Your task to perform on an android device: turn vacation reply on in the gmail app Image 0: 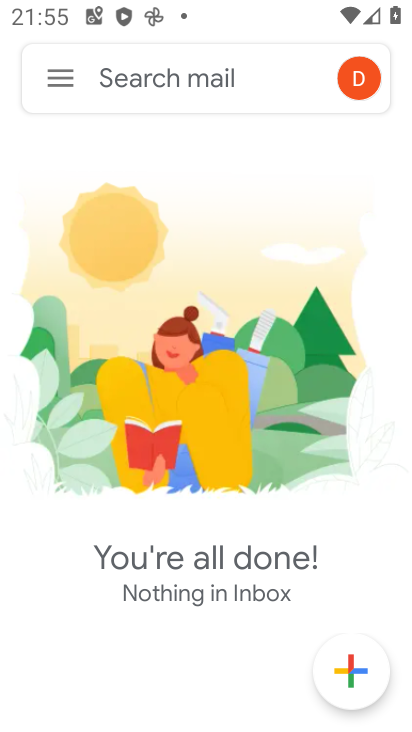
Step 0: click (50, 94)
Your task to perform on an android device: turn vacation reply on in the gmail app Image 1: 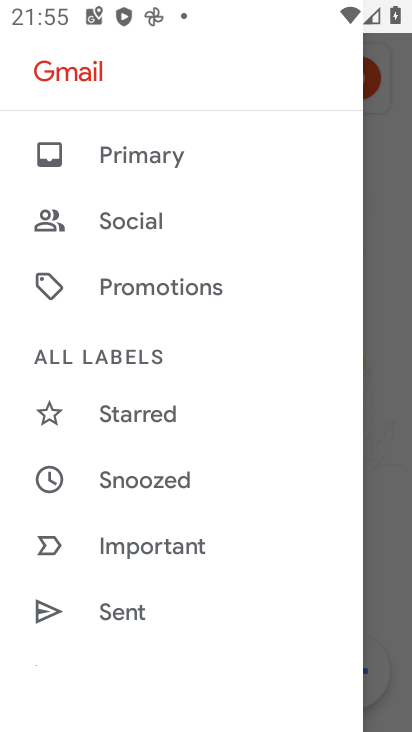
Step 1: drag from (75, 527) to (238, 74)
Your task to perform on an android device: turn vacation reply on in the gmail app Image 2: 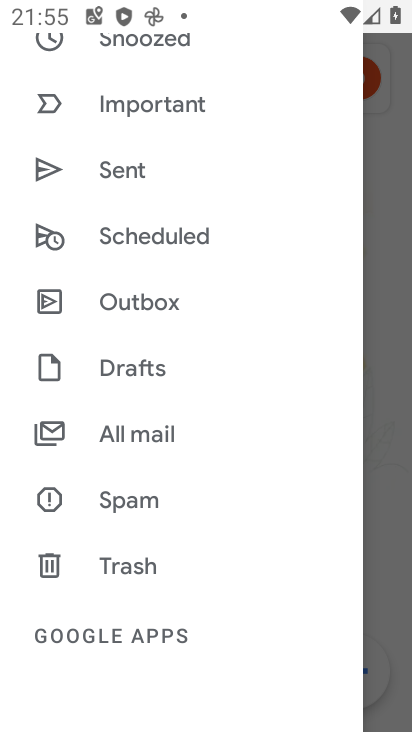
Step 2: drag from (203, 606) to (252, 249)
Your task to perform on an android device: turn vacation reply on in the gmail app Image 3: 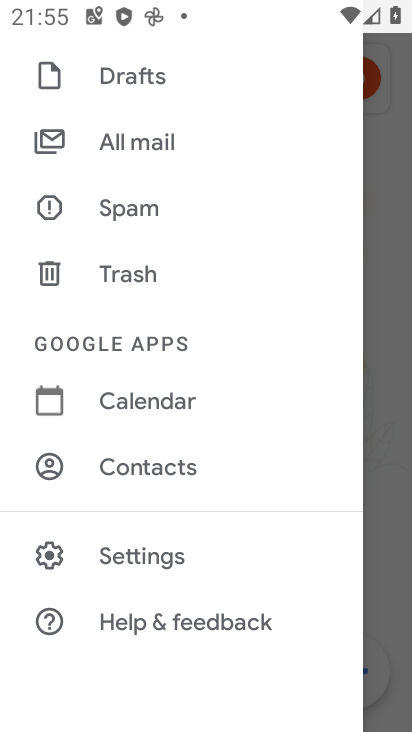
Step 3: click (179, 539)
Your task to perform on an android device: turn vacation reply on in the gmail app Image 4: 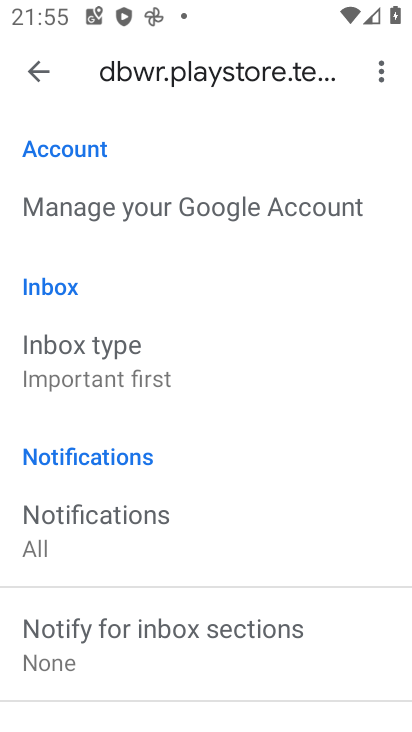
Step 4: task complete